Your task to perform on an android device: Open Youtube and go to the subscriptions tab Image 0: 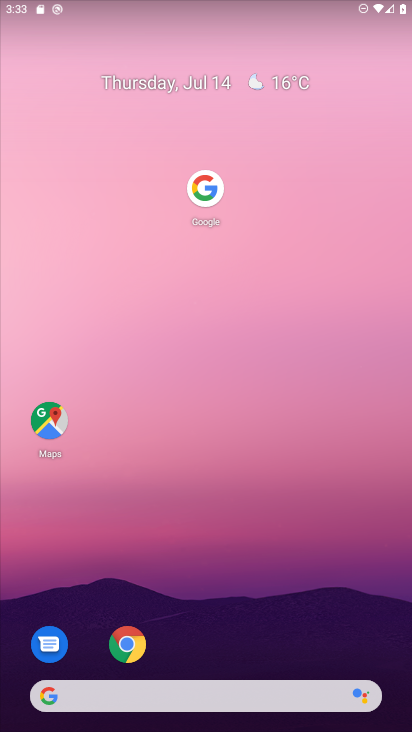
Step 0: drag from (201, 630) to (206, 237)
Your task to perform on an android device: Open Youtube and go to the subscriptions tab Image 1: 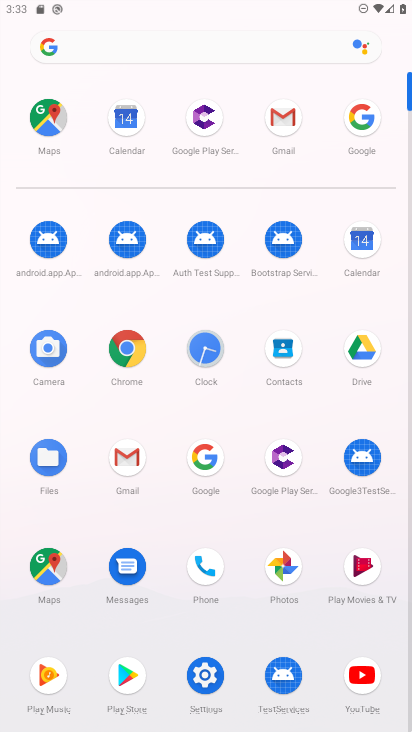
Step 1: click (346, 691)
Your task to perform on an android device: Open Youtube and go to the subscriptions tab Image 2: 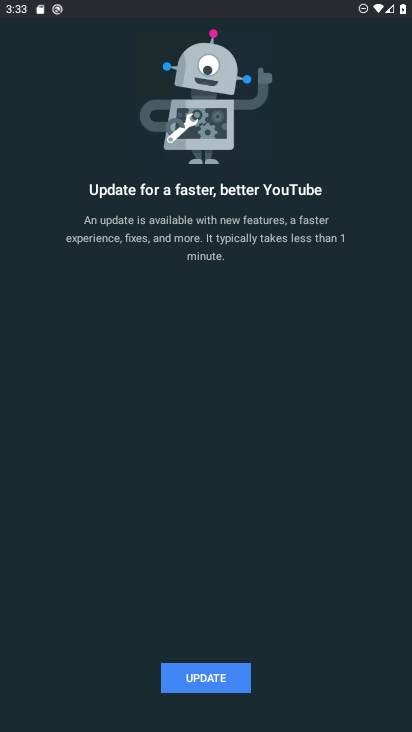
Step 2: click (180, 677)
Your task to perform on an android device: Open Youtube and go to the subscriptions tab Image 3: 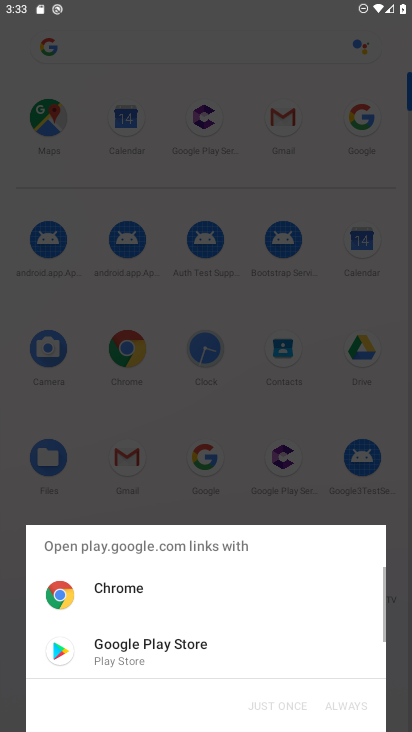
Step 3: drag from (189, 645) to (277, 645)
Your task to perform on an android device: Open Youtube and go to the subscriptions tab Image 4: 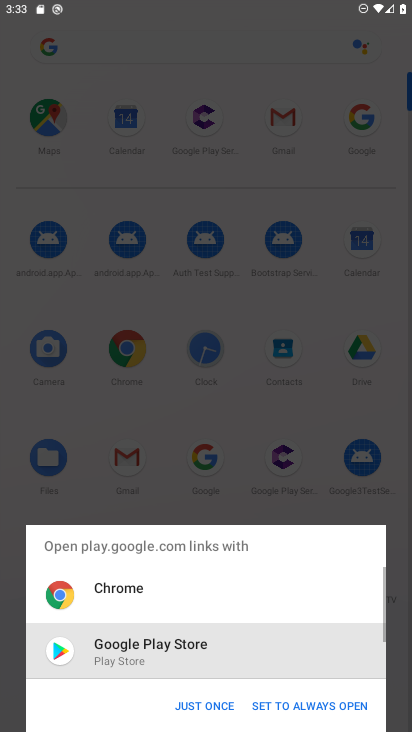
Step 4: click (158, 659)
Your task to perform on an android device: Open Youtube and go to the subscriptions tab Image 5: 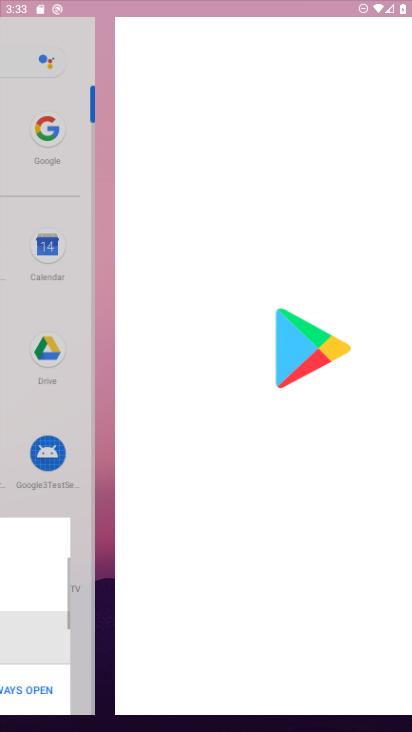
Step 5: click (222, 709)
Your task to perform on an android device: Open Youtube and go to the subscriptions tab Image 6: 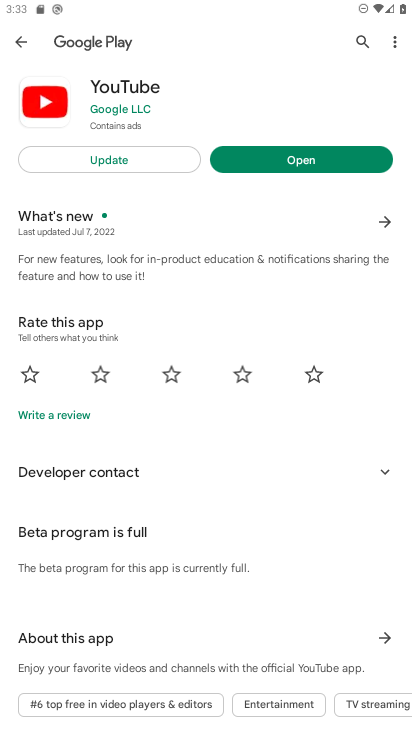
Step 6: click (114, 166)
Your task to perform on an android device: Open Youtube and go to the subscriptions tab Image 7: 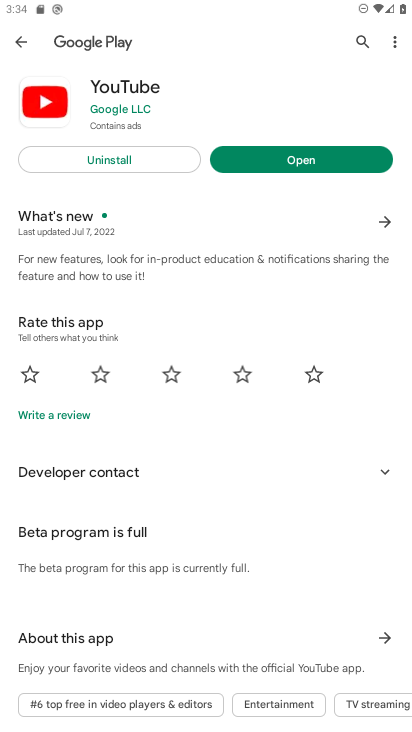
Step 7: click (307, 166)
Your task to perform on an android device: Open Youtube and go to the subscriptions tab Image 8: 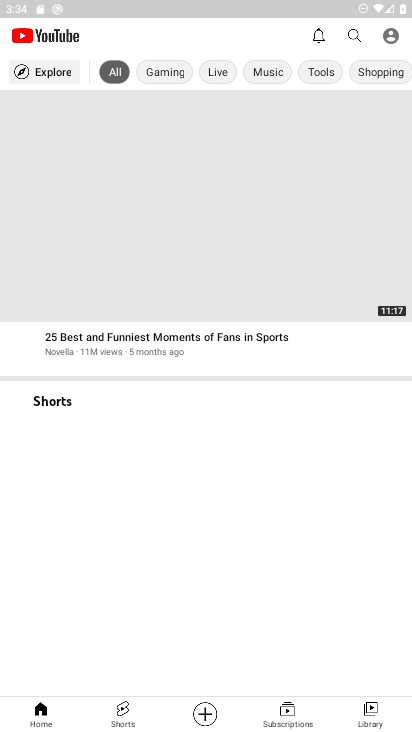
Step 8: click (277, 716)
Your task to perform on an android device: Open Youtube and go to the subscriptions tab Image 9: 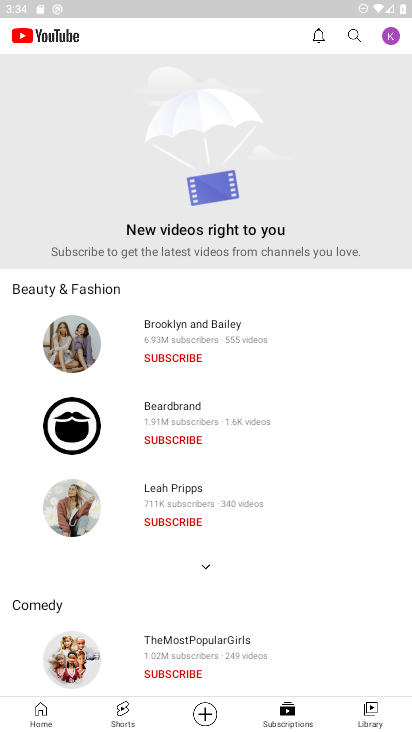
Step 9: task complete